Your task to perform on an android device: Show the shopping cart on ebay.com. Image 0: 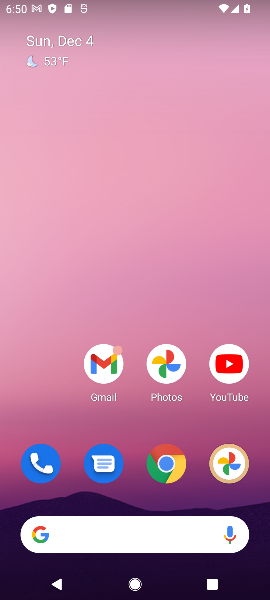
Step 0: click (167, 522)
Your task to perform on an android device: Show the shopping cart on ebay.com. Image 1: 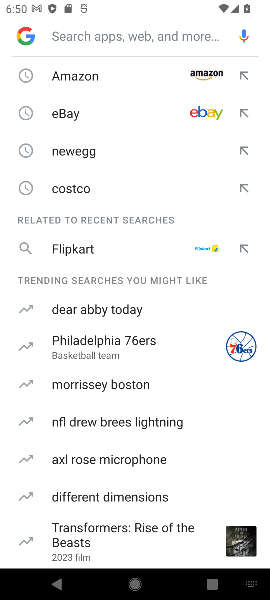
Step 1: click (91, 108)
Your task to perform on an android device: Show the shopping cart on ebay.com. Image 2: 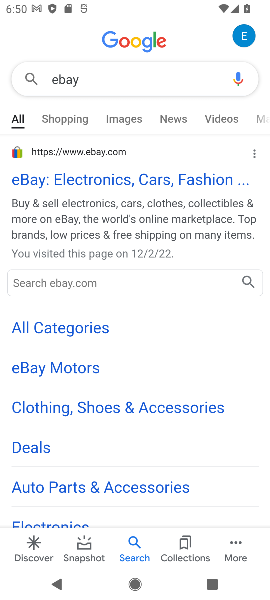
Step 2: click (91, 173)
Your task to perform on an android device: Show the shopping cart on ebay.com. Image 3: 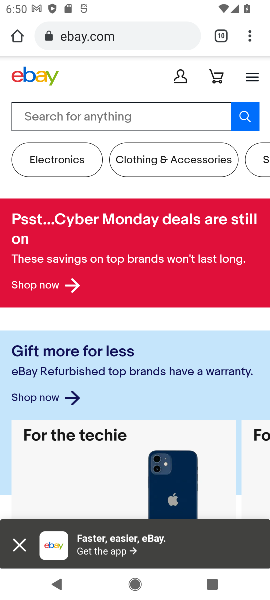
Step 3: click (86, 114)
Your task to perform on an android device: Show the shopping cart on ebay.com. Image 4: 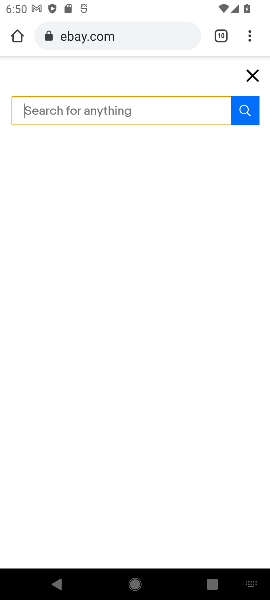
Step 4: click (245, 72)
Your task to perform on an android device: Show the shopping cart on ebay.com. Image 5: 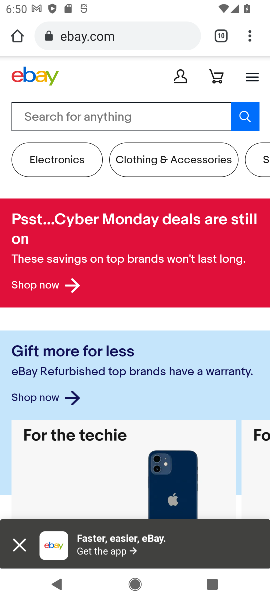
Step 5: click (218, 89)
Your task to perform on an android device: Show the shopping cart on ebay.com. Image 6: 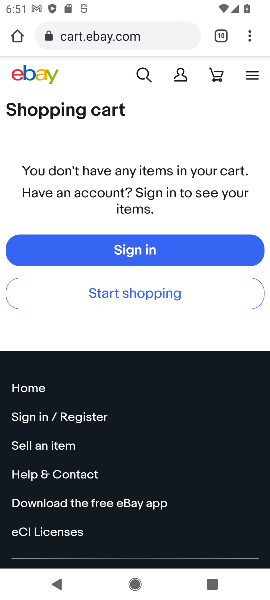
Step 6: task complete